Your task to perform on an android device: turn off airplane mode Image 0: 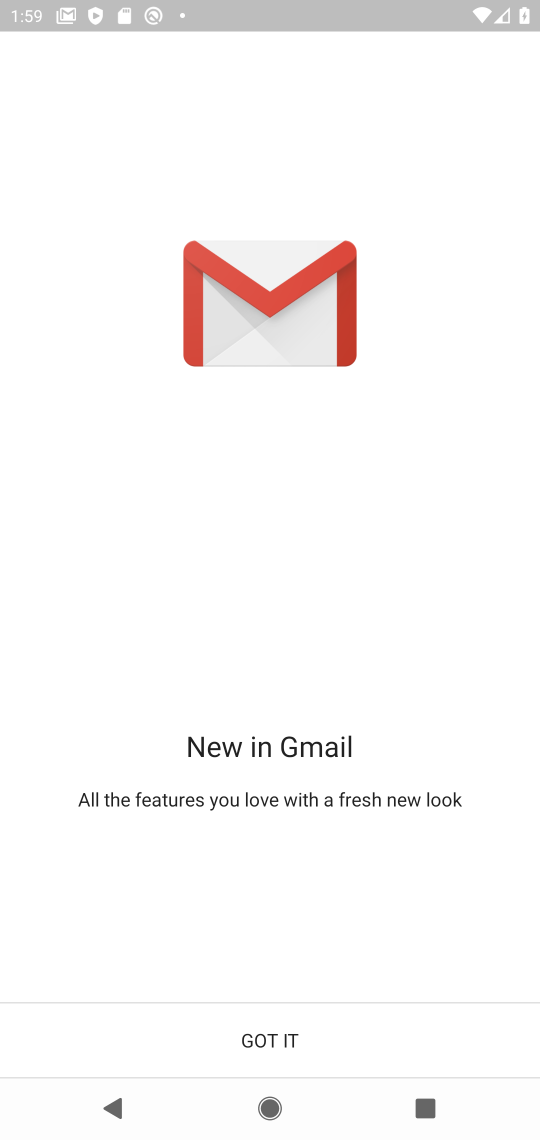
Step 0: press home button
Your task to perform on an android device: turn off airplane mode Image 1: 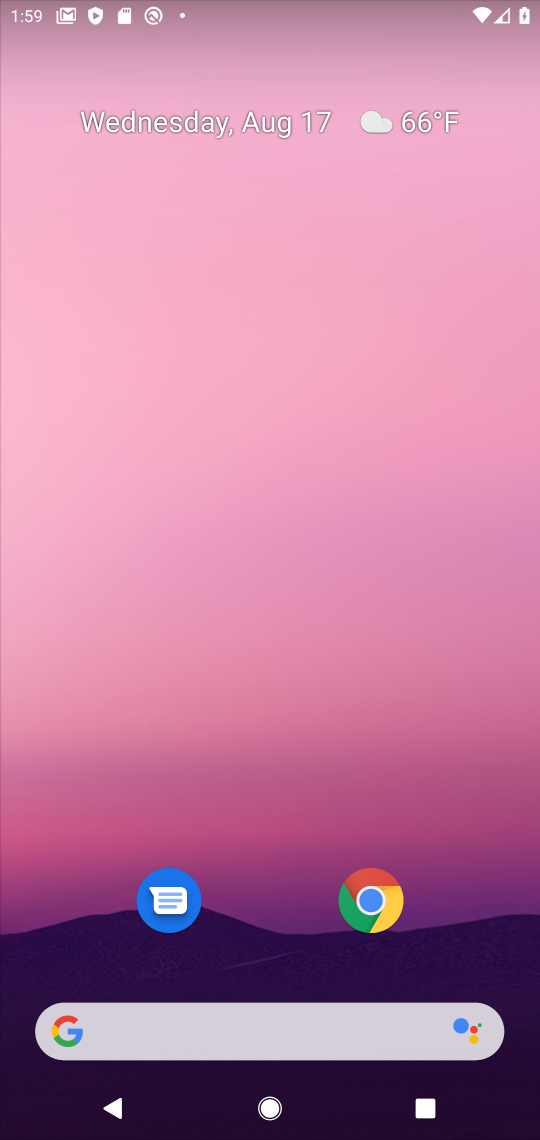
Step 1: drag from (269, 1027) to (477, 172)
Your task to perform on an android device: turn off airplane mode Image 2: 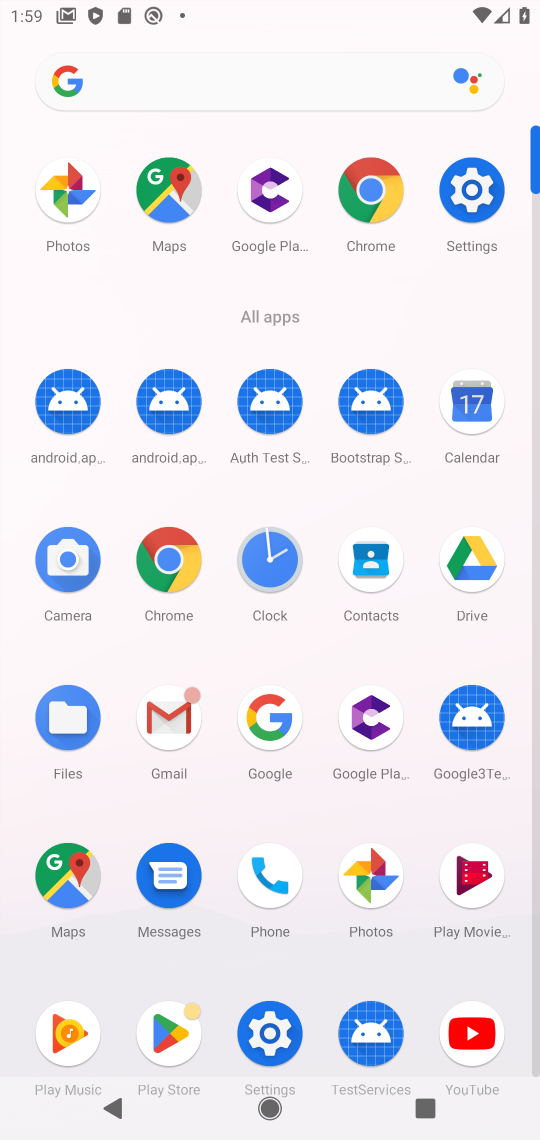
Step 2: click (477, 185)
Your task to perform on an android device: turn off airplane mode Image 3: 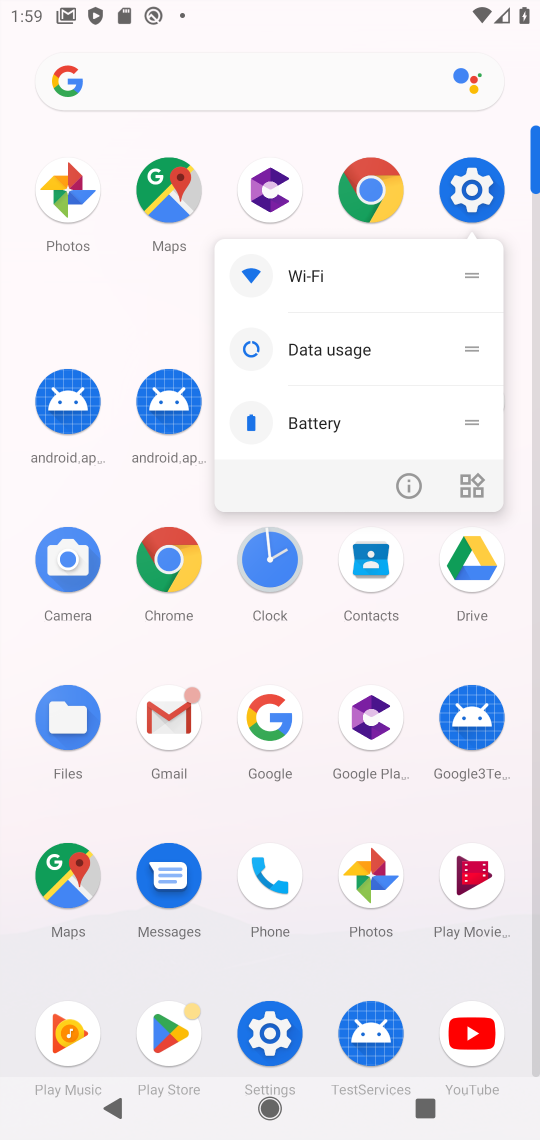
Step 3: click (483, 189)
Your task to perform on an android device: turn off airplane mode Image 4: 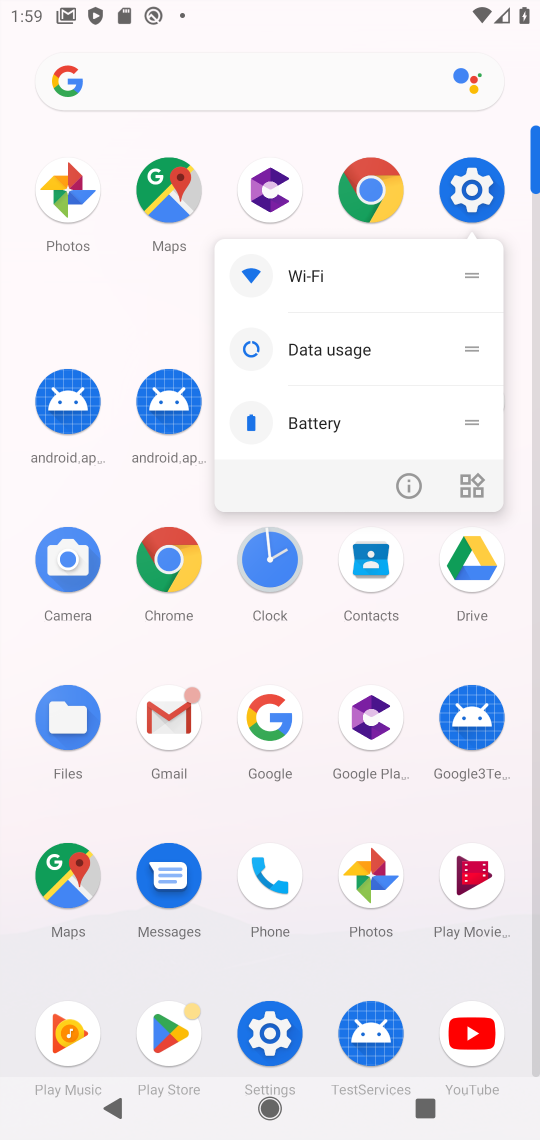
Step 4: click (483, 189)
Your task to perform on an android device: turn off airplane mode Image 5: 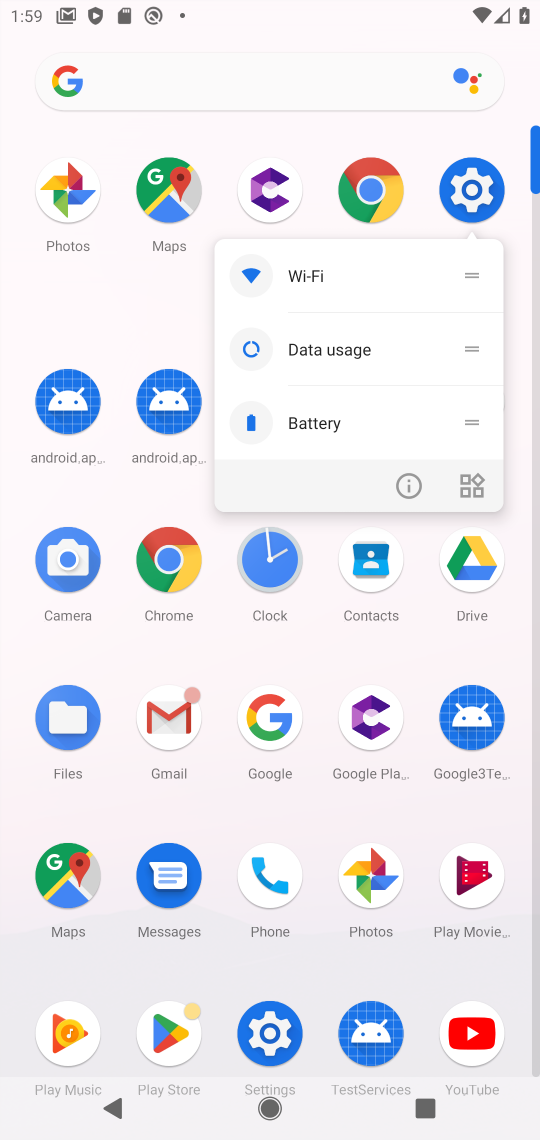
Step 5: click (483, 189)
Your task to perform on an android device: turn off airplane mode Image 6: 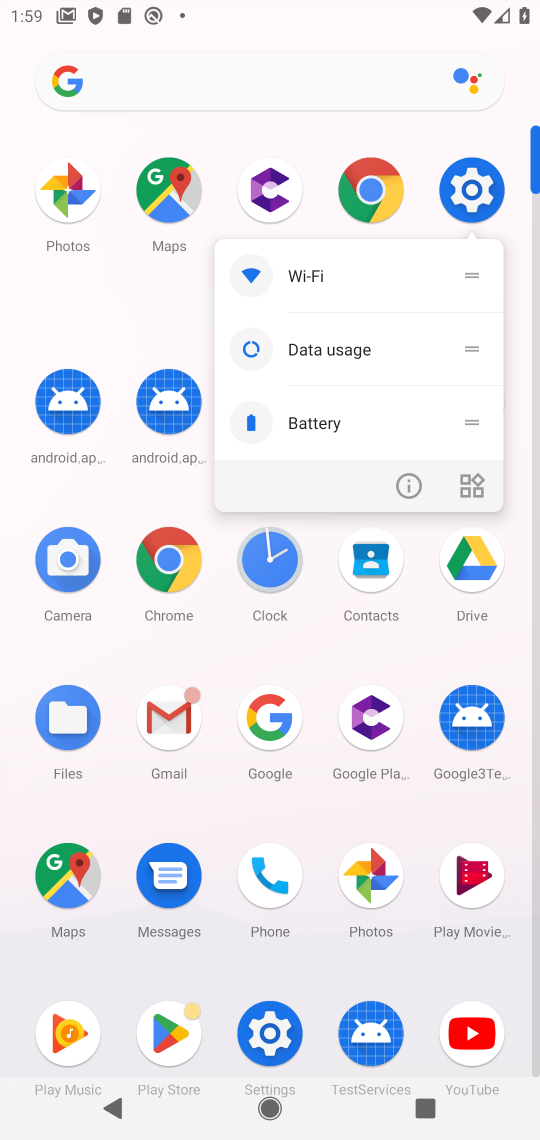
Step 6: click (483, 192)
Your task to perform on an android device: turn off airplane mode Image 7: 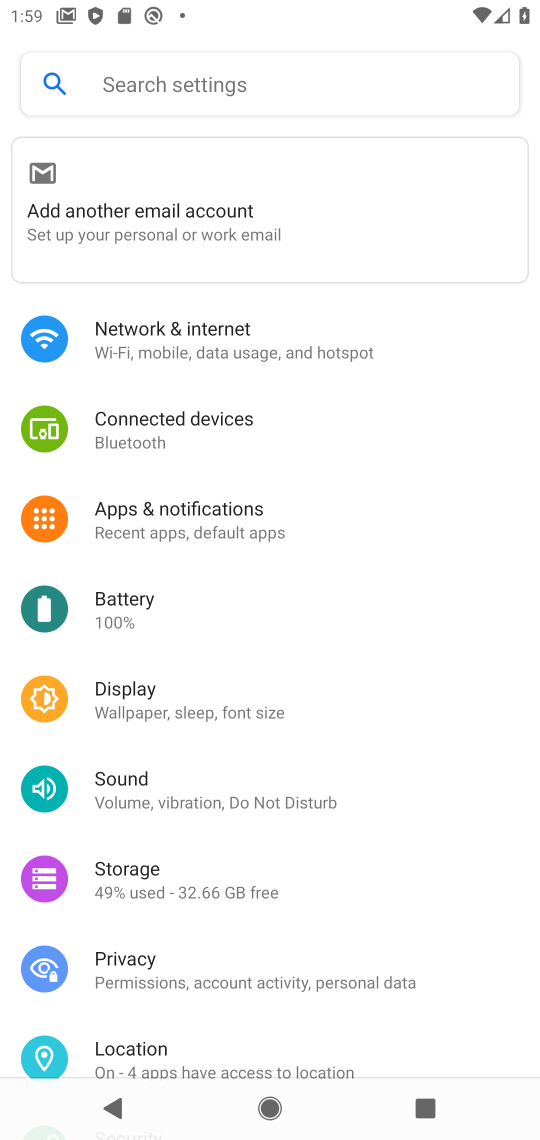
Step 7: click (219, 354)
Your task to perform on an android device: turn off airplane mode Image 8: 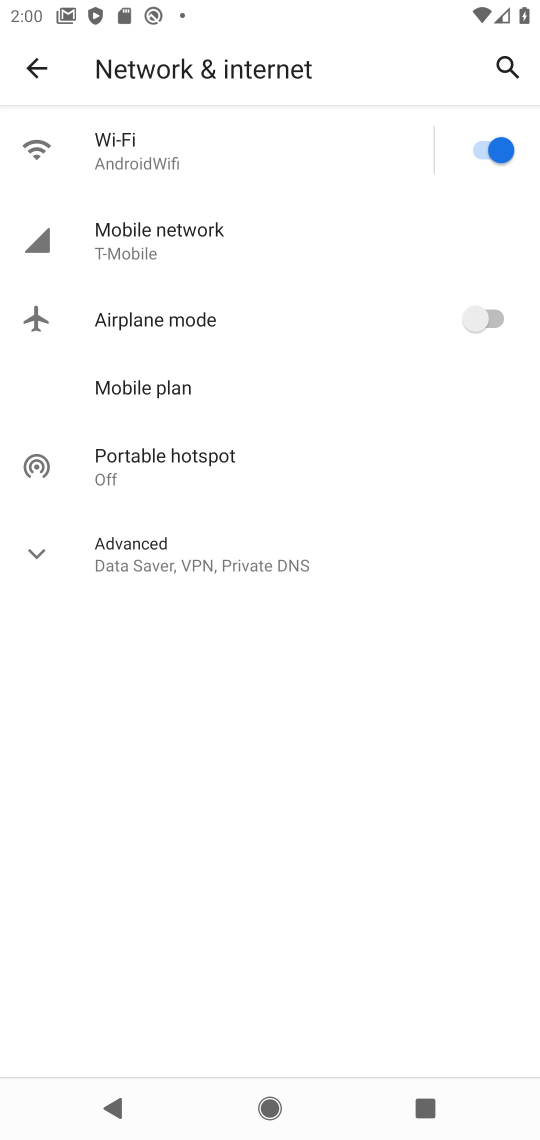
Step 8: task complete